Your task to perform on an android device: change the clock display to show seconds Image 0: 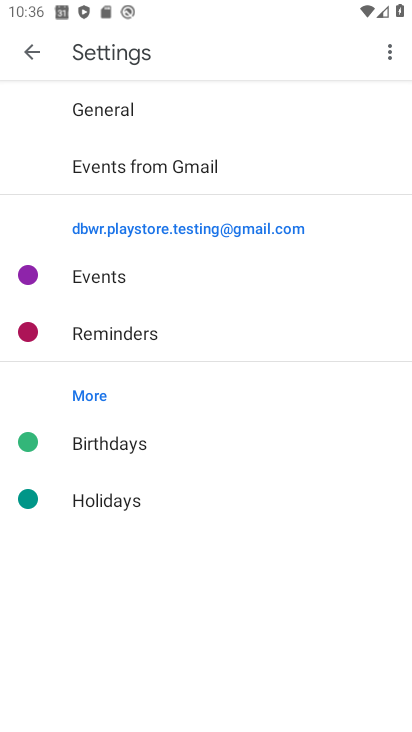
Step 0: task complete